Your task to perform on an android device: Go to internet settings Image 0: 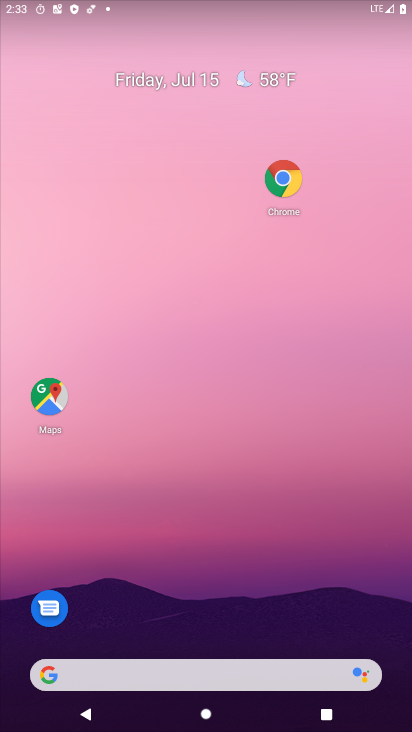
Step 0: drag from (269, 549) to (274, 23)
Your task to perform on an android device: Go to internet settings Image 1: 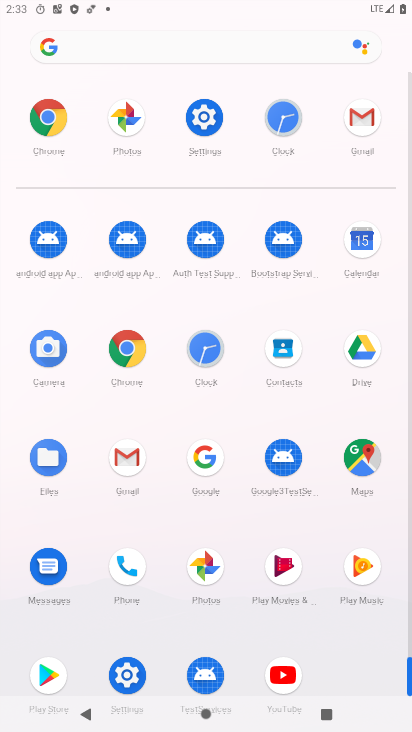
Step 1: click (206, 116)
Your task to perform on an android device: Go to internet settings Image 2: 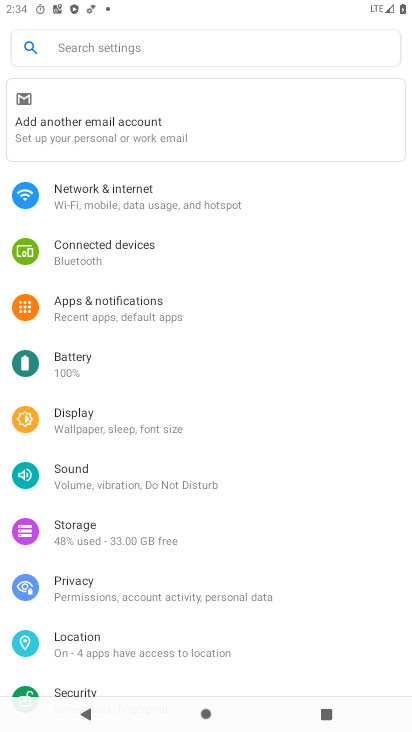
Step 2: click (116, 188)
Your task to perform on an android device: Go to internet settings Image 3: 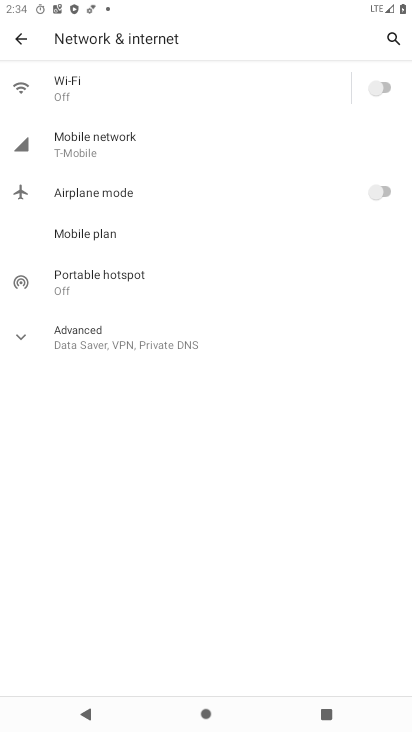
Step 3: task complete